Your task to perform on an android device: Is it going to rain tomorrow? Image 0: 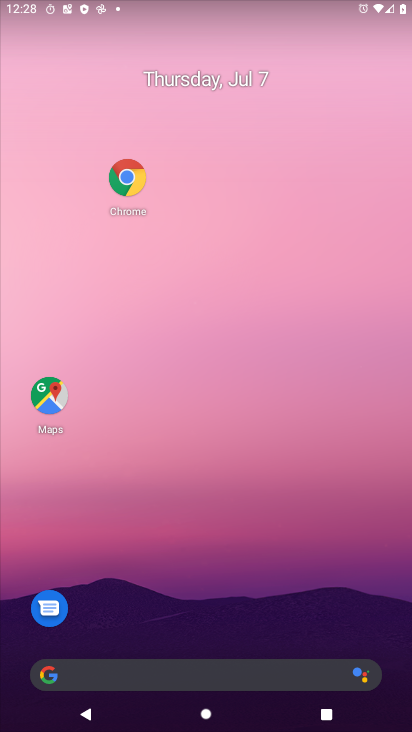
Step 0: drag from (151, 597) to (169, 185)
Your task to perform on an android device: Is it going to rain tomorrow? Image 1: 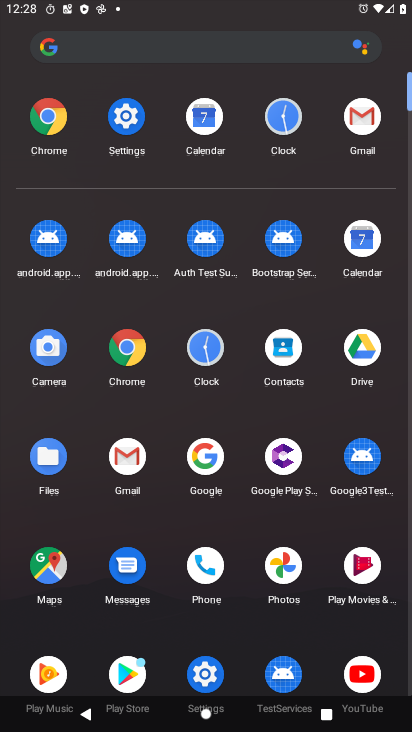
Step 1: click (204, 464)
Your task to perform on an android device: Is it going to rain tomorrow? Image 2: 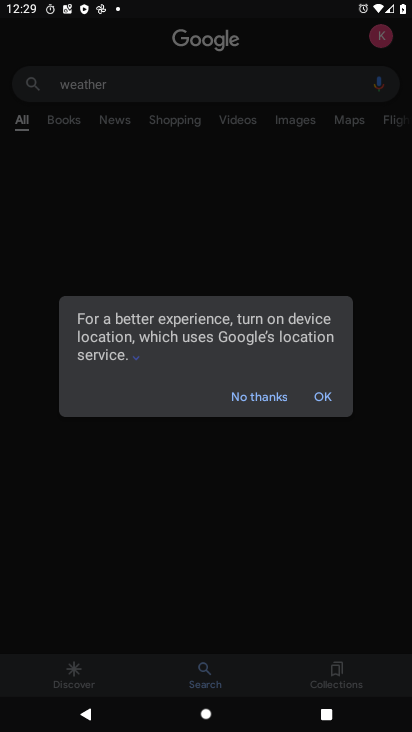
Step 2: click (316, 402)
Your task to perform on an android device: Is it going to rain tomorrow? Image 3: 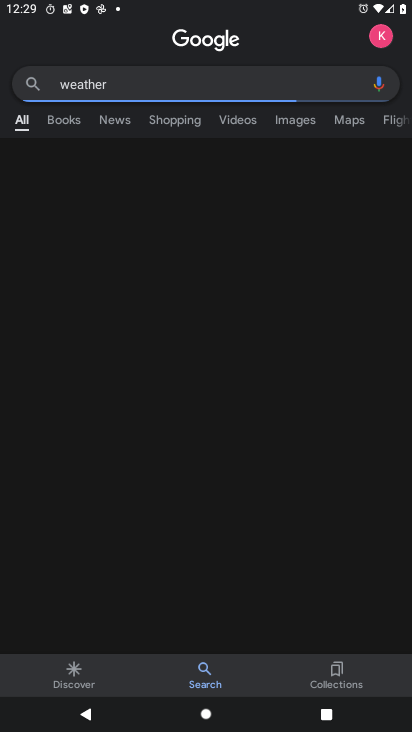
Step 3: click (111, 89)
Your task to perform on an android device: Is it going to rain tomorrow? Image 4: 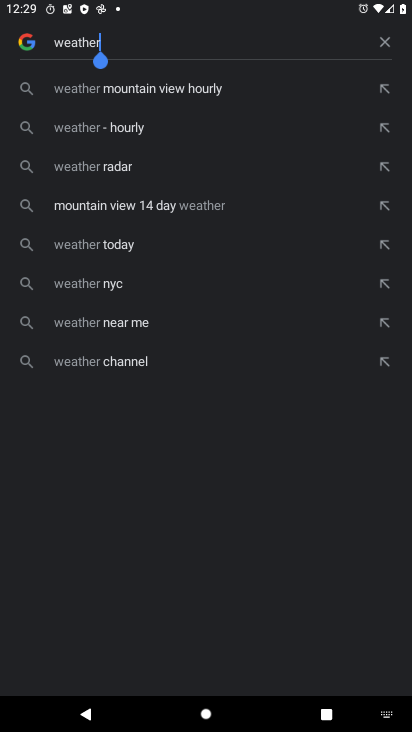
Step 4: click (379, 45)
Your task to perform on an android device: Is it going to rain tomorrow? Image 5: 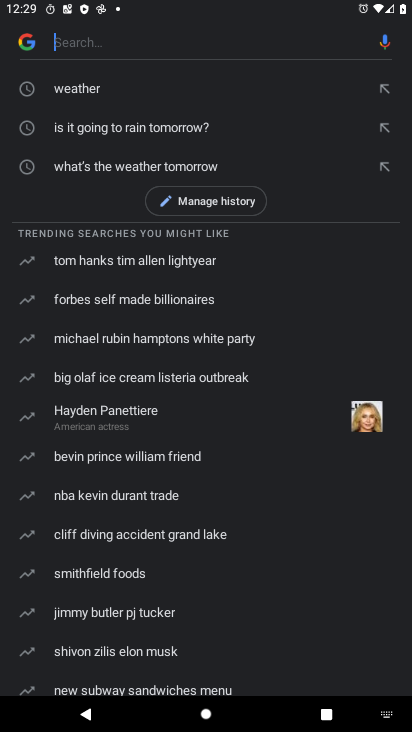
Step 5: click (188, 132)
Your task to perform on an android device: Is it going to rain tomorrow? Image 6: 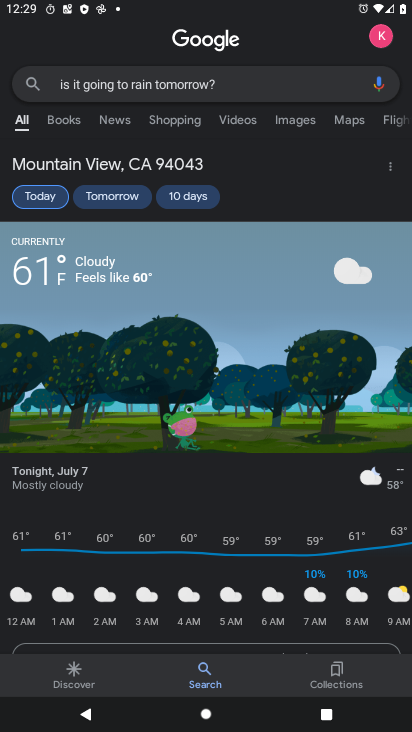
Step 6: task complete